Your task to perform on an android device: Go to internet settings Image 0: 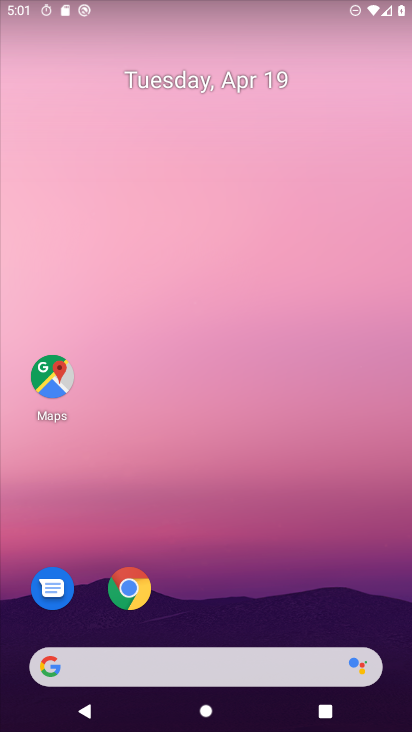
Step 0: drag from (250, 586) to (254, 23)
Your task to perform on an android device: Go to internet settings Image 1: 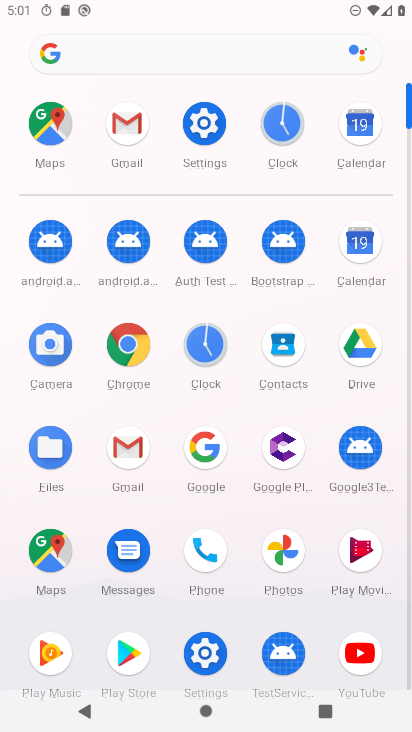
Step 1: click (203, 137)
Your task to perform on an android device: Go to internet settings Image 2: 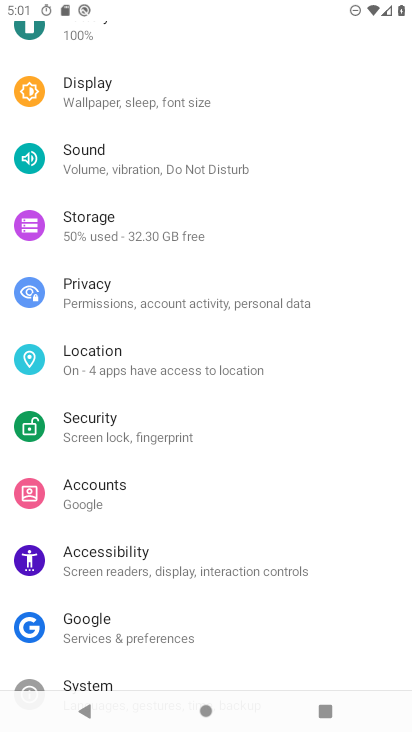
Step 2: drag from (184, 147) to (173, 541)
Your task to perform on an android device: Go to internet settings Image 3: 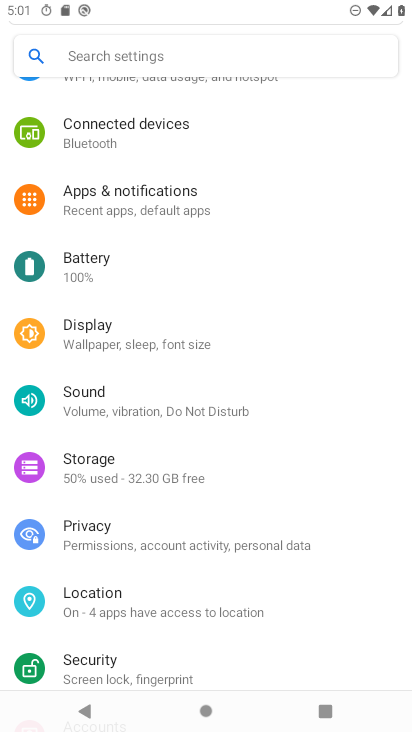
Step 3: drag from (143, 173) to (134, 549)
Your task to perform on an android device: Go to internet settings Image 4: 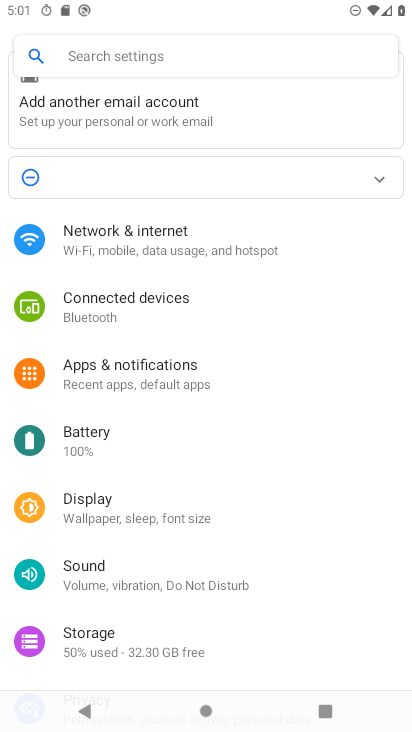
Step 4: click (152, 251)
Your task to perform on an android device: Go to internet settings Image 5: 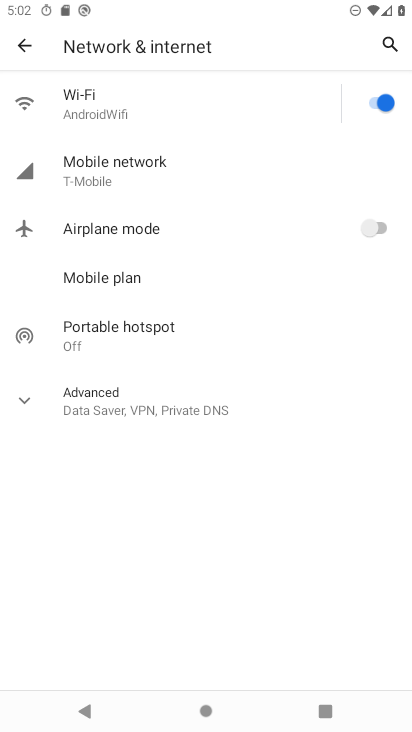
Step 5: click (144, 171)
Your task to perform on an android device: Go to internet settings Image 6: 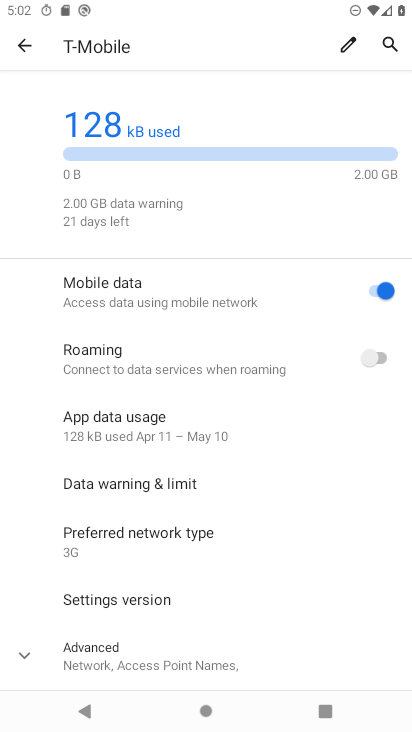
Step 6: task complete